Your task to perform on an android device: Show me popular games on the Play Store Image 0: 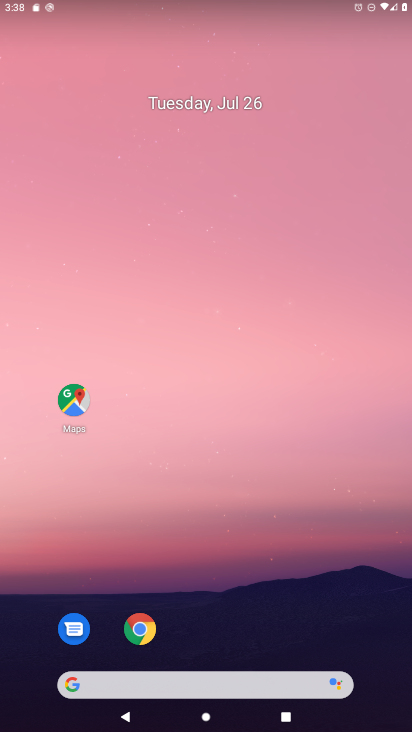
Step 0: drag from (194, 644) to (187, 268)
Your task to perform on an android device: Show me popular games on the Play Store Image 1: 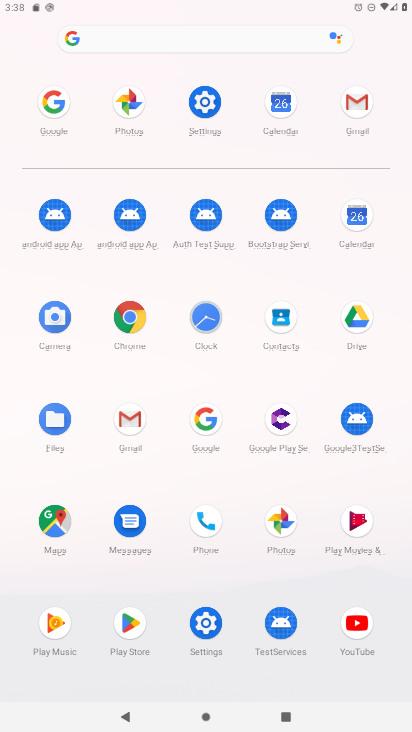
Step 1: click (133, 630)
Your task to perform on an android device: Show me popular games on the Play Store Image 2: 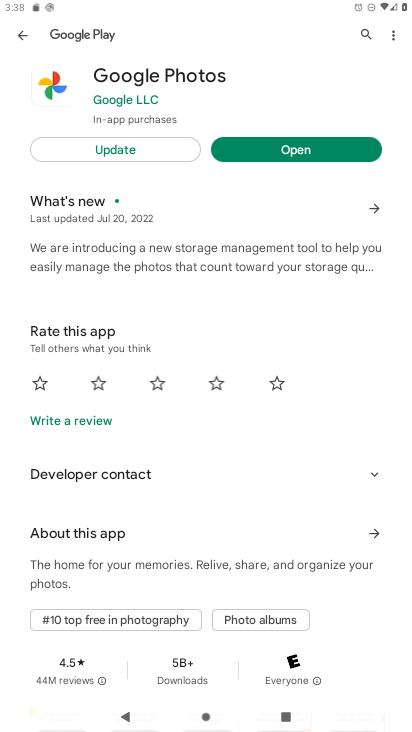
Step 2: click (19, 37)
Your task to perform on an android device: Show me popular games on the Play Store Image 3: 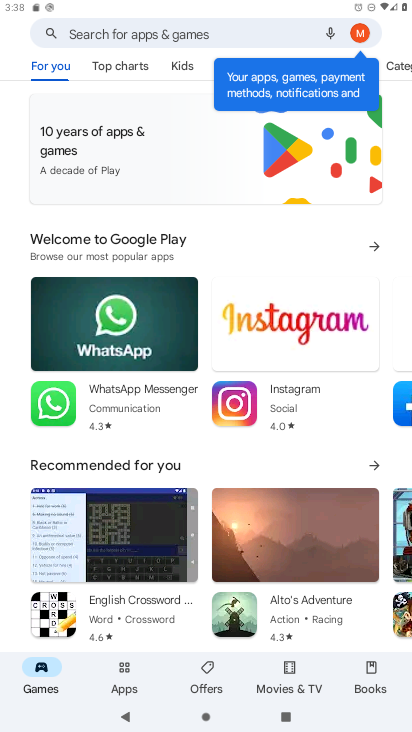
Step 3: click (133, 74)
Your task to perform on an android device: Show me popular games on the Play Store Image 4: 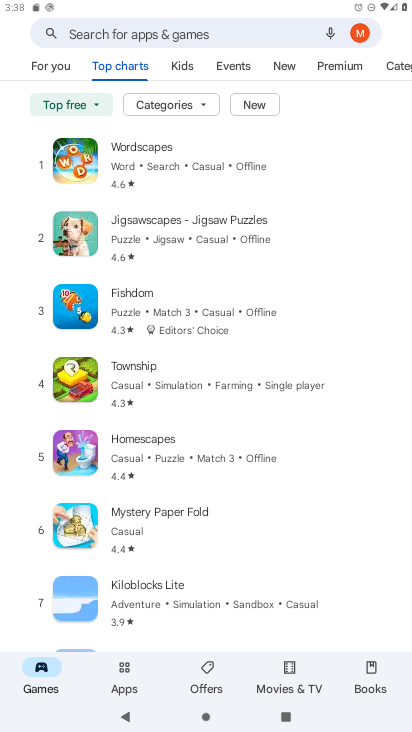
Step 4: task complete